Your task to perform on an android device: Go to Yahoo.com Image 0: 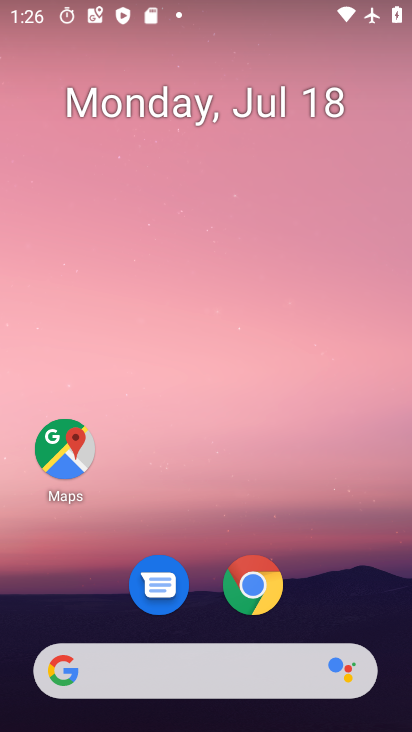
Step 0: press home button
Your task to perform on an android device: Go to Yahoo.com Image 1: 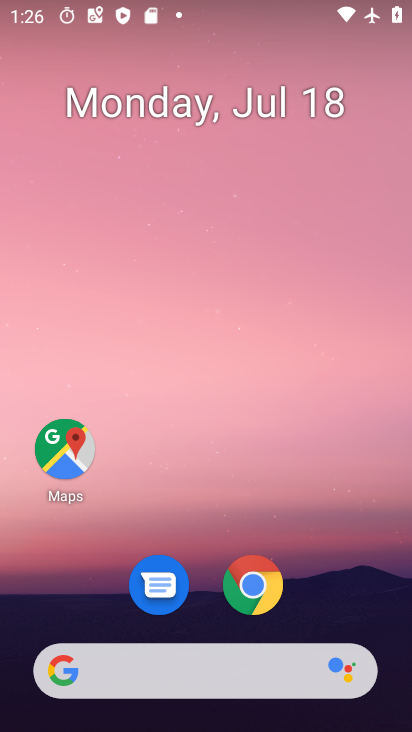
Step 1: click (248, 585)
Your task to perform on an android device: Go to Yahoo.com Image 2: 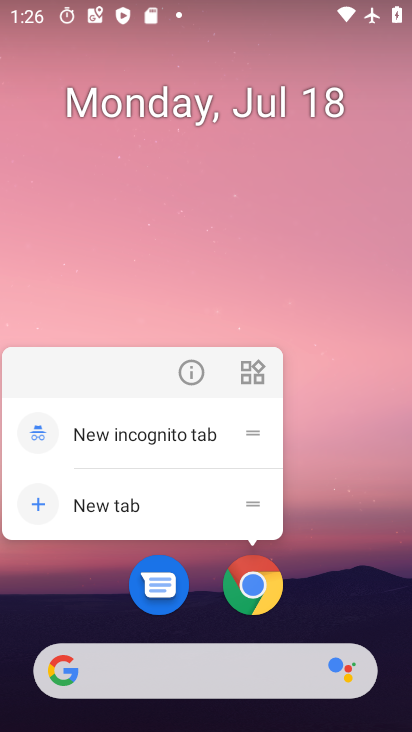
Step 2: click (247, 595)
Your task to perform on an android device: Go to Yahoo.com Image 3: 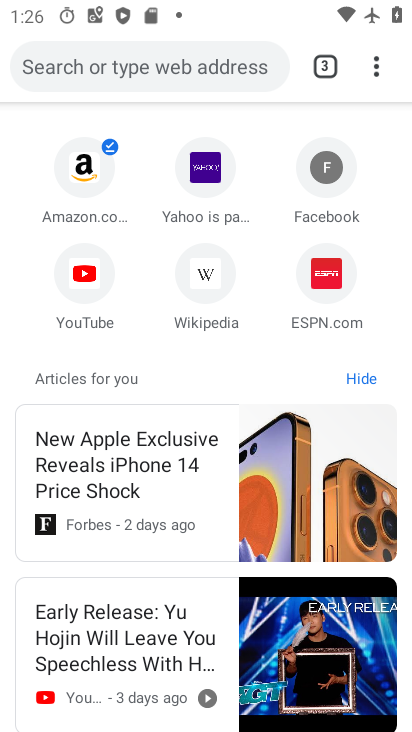
Step 3: click (204, 176)
Your task to perform on an android device: Go to Yahoo.com Image 4: 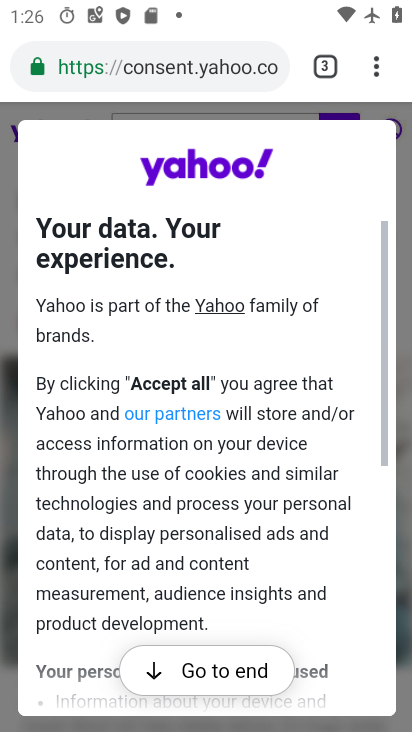
Step 4: click (214, 669)
Your task to perform on an android device: Go to Yahoo.com Image 5: 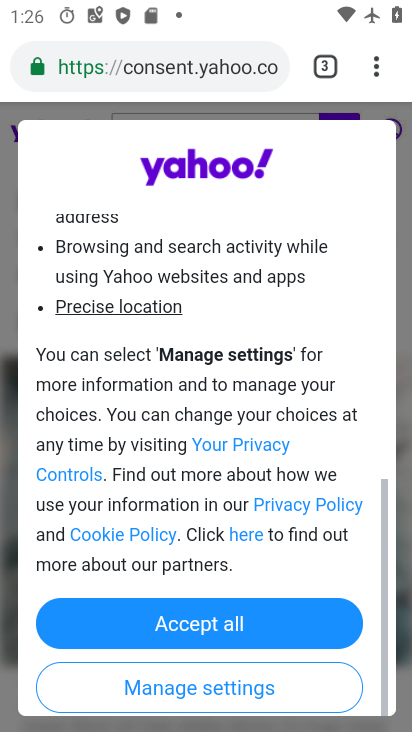
Step 5: click (240, 624)
Your task to perform on an android device: Go to Yahoo.com Image 6: 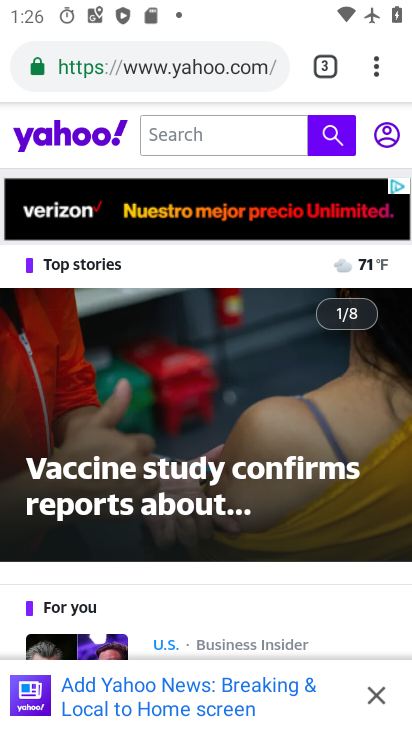
Step 6: task complete